Your task to perform on an android device: Open settings on Google Maps Image 0: 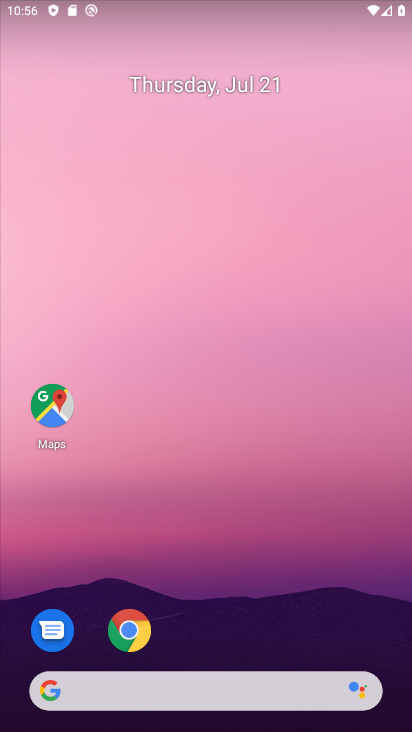
Step 0: drag from (240, 723) to (216, 337)
Your task to perform on an android device: Open settings on Google Maps Image 1: 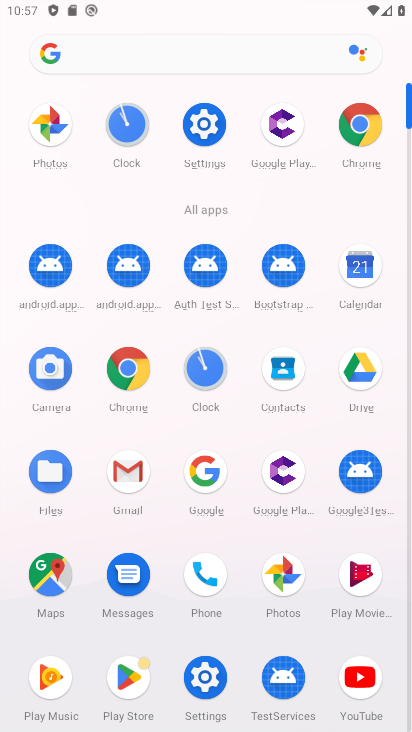
Step 1: click (50, 574)
Your task to perform on an android device: Open settings on Google Maps Image 2: 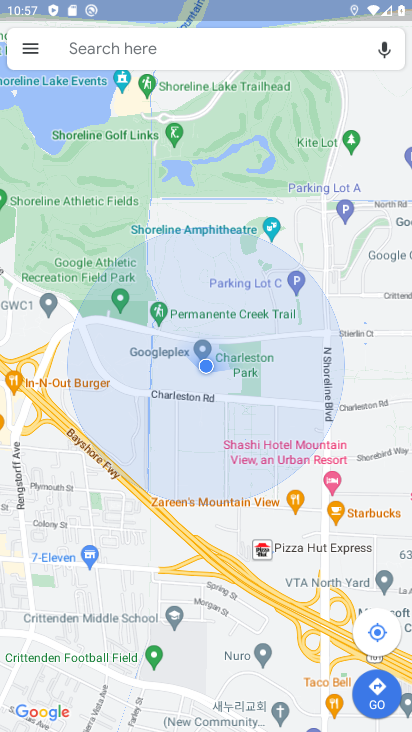
Step 2: click (27, 49)
Your task to perform on an android device: Open settings on Google Maps Image 3: 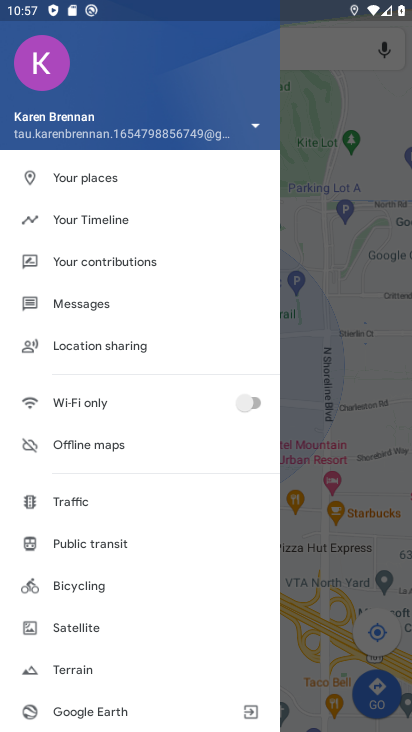
Step 3: drag from (106, 704) to (104, 268)
Your task to perform on an android device: Open settings on Google Maps Image 4: 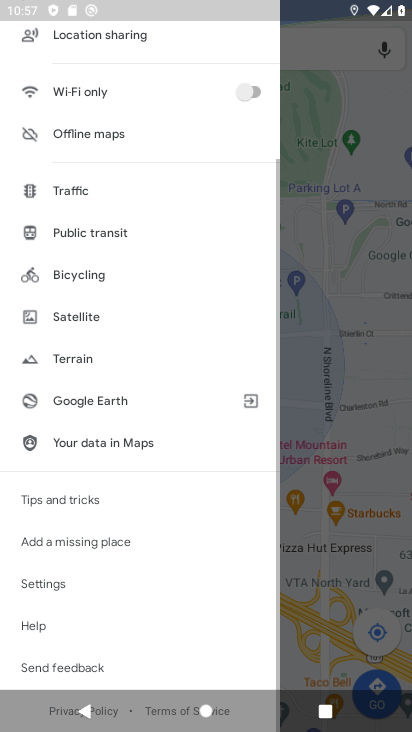
Step 4: click (50, 577)
Your task to perform on an android device: Open settings on Google Maps Image 5: 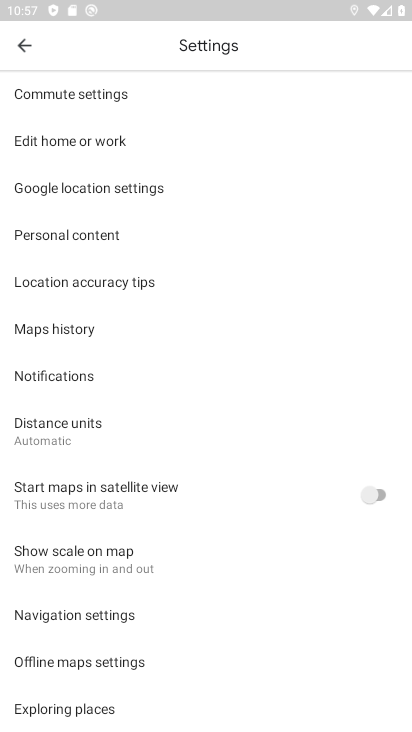
Step 5: task complete